Your task to perform on an android device: Go to battery settings Image 0: 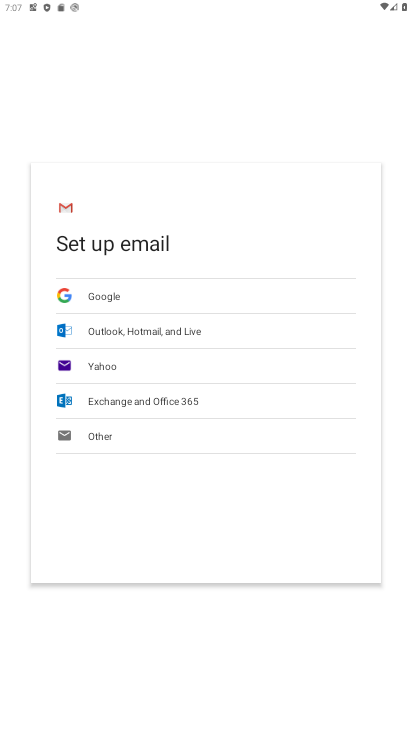
Step 0: press home button
Your task to perform on an android device: Go to battery settings Image 1: 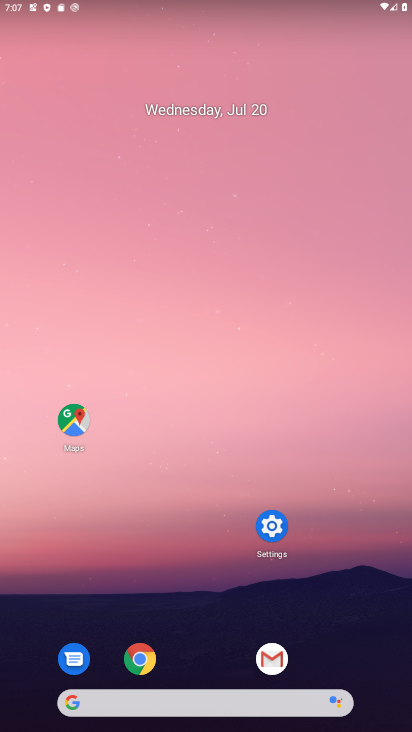
Step 1: click (276, 526)
Your task to perform on an android device: Go to battery settings Image 2: 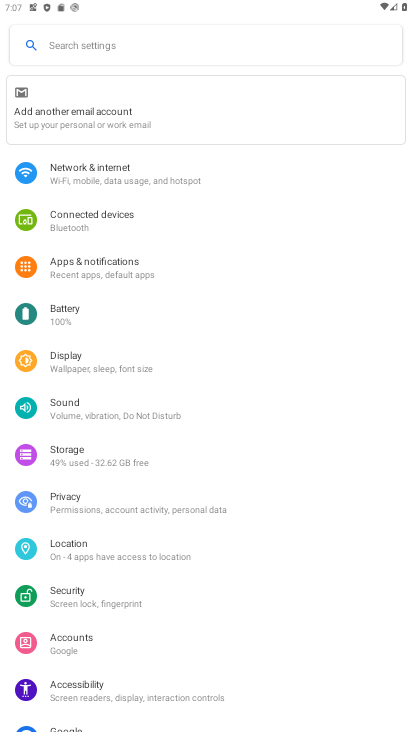
Step 2: click (99, 312)
Your task to perform on an android device: Go to battery settings Image 3: 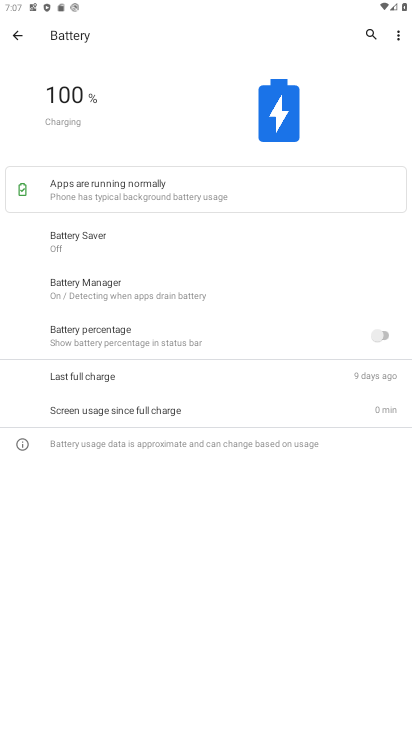
Step 3: task complete